Your task to perform on an android device: set an alarm Image 0: 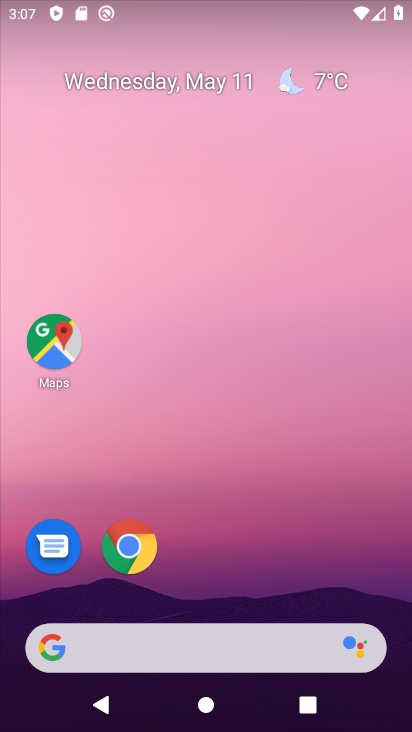
Step 0: drag from (245, 636) to (289, 1)
Your task to perform on an android device: set an alarm Image 1: 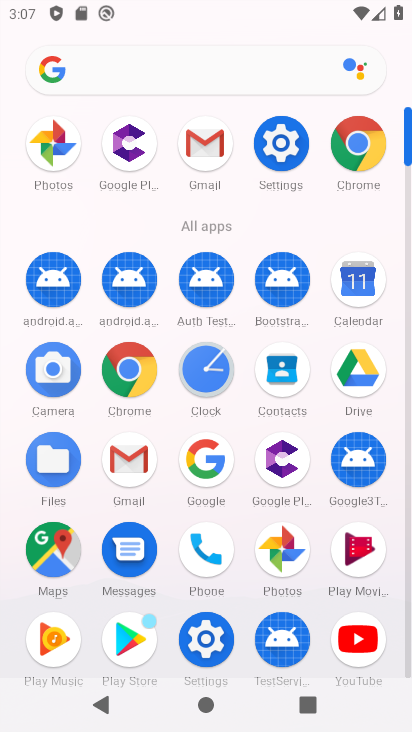
Step 1: drag from (249, 640) to (250, 491)
Your task to perform on an android device: set an alarm Image 2: 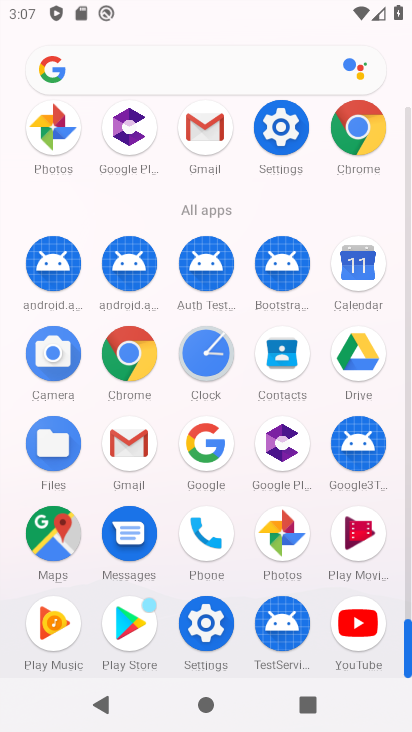
Step 2: click (212, 344)
Your task to perform on an android device: set an alarm Image 3: 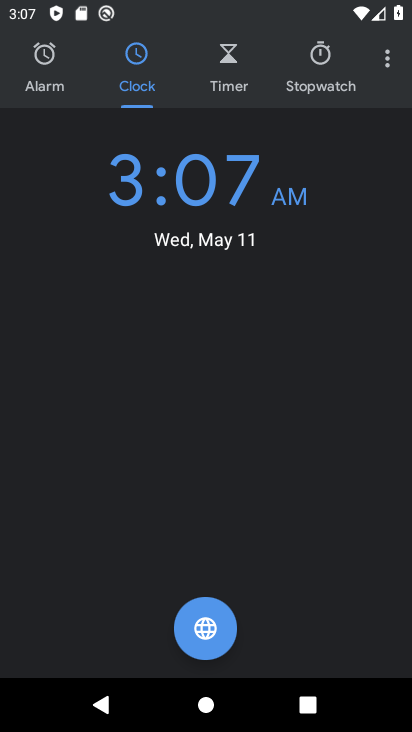
Step 3: click (28, 62)
Your task to perform on an android device: set an alarm Image 4: 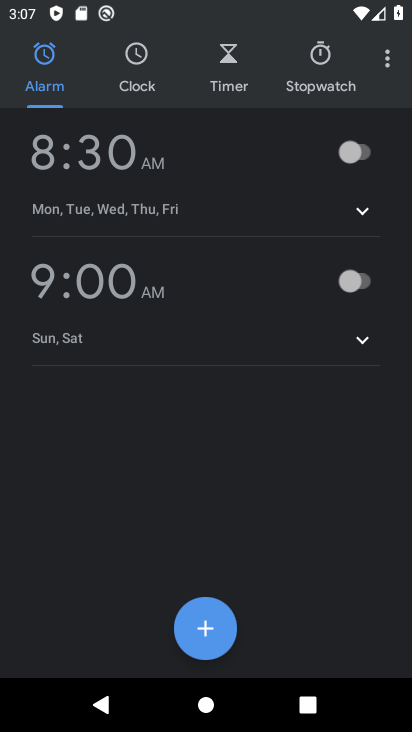
Step 4: click (358, 275)
Your task to perform on an android device: set an alarm Image 5: 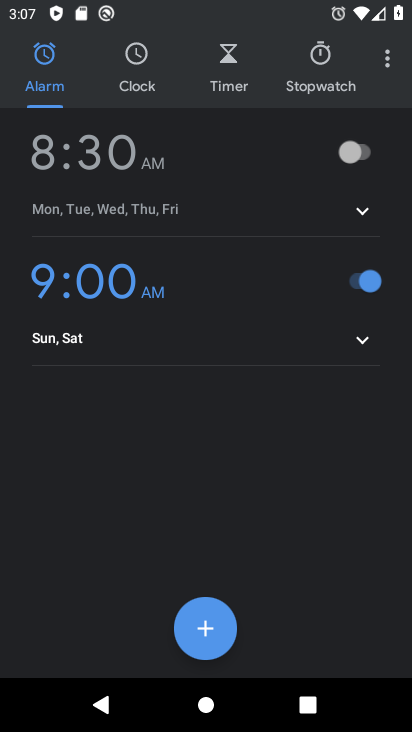
Step 5: task complete